Your task to perform on an android device: open app "DuckDuckGo Privacy Browser" Image 0: 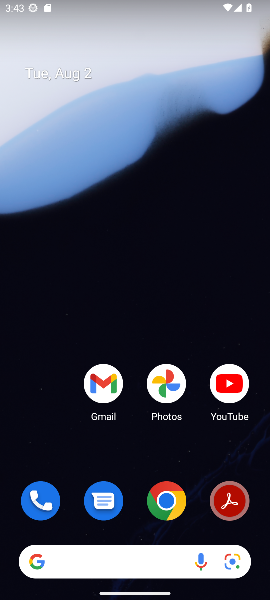
Step 0: drag from (129, 460) to (45, 106)
Your task to perform on an android device: open app "DuckDuckGo Privacy Browser" Image 1: 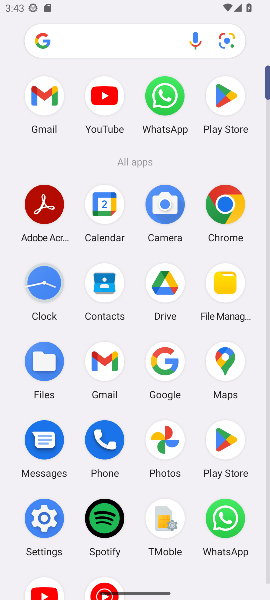
Step 1: click (221, 449)
Your task to perform on an android device: open app "DuckDuckGo Privacy Browser" Image 2: 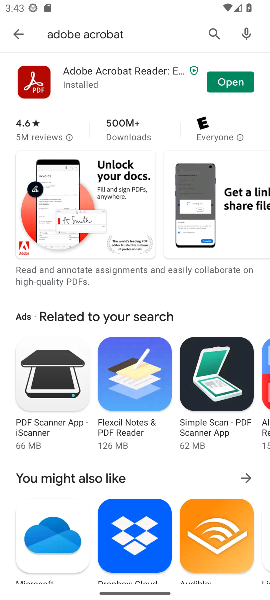
Step 2: click (211, 31)
Your task to perform on an android device: open app "DuckDuckGo Privacy Browser" Image 3: 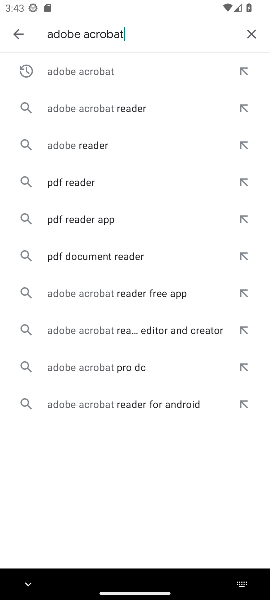
Step 3: click (211, 31)
Your task to perform on an android device: open app "DuckDuckGo Privacy Browser" Image 4: 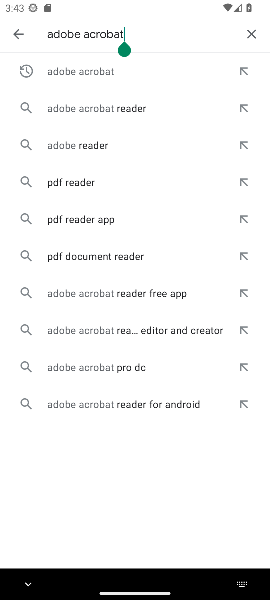
Step 4: click (250, 32)
Your task to perform on an android device: open app "DuckDuckGo Privacy Browser" Image 5: 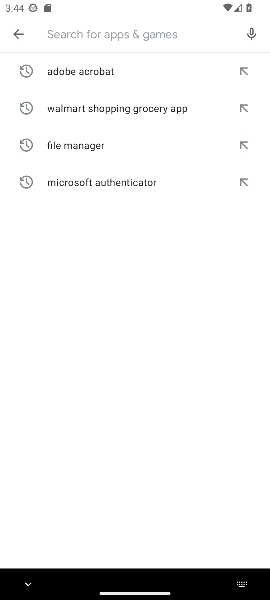
Step 5: type "duckduckgo"
Your task to perform on an android device: open app "DuckDuckGo Privacy Browser" Image 6: 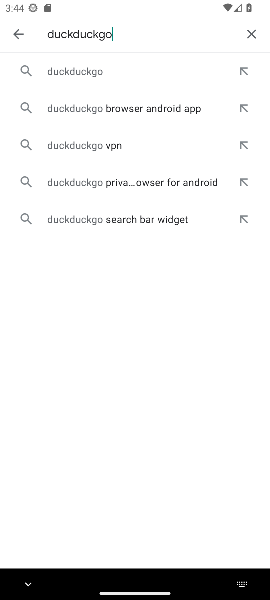
Step 6: click (99, 71)
Your task to perform on an android device: open app "DuckDuckGo Privacy Browser" Image 7: 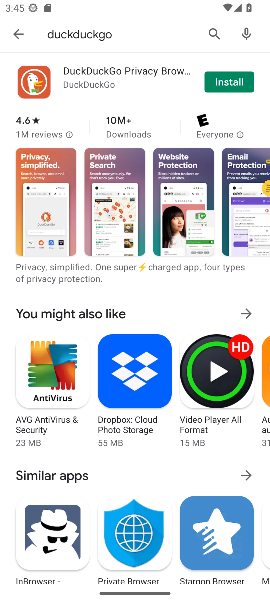
Step 7: click (228, 81)
Your task to perform on an android device: open app "DuckDuckGo Privacy Browser" Image 8: 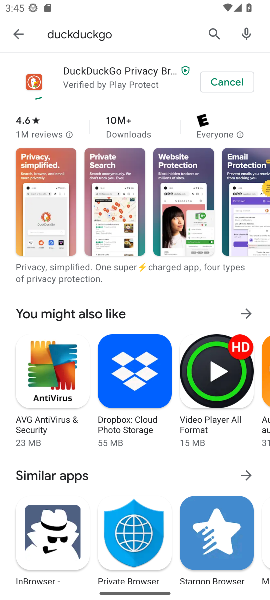
Step 8: click (229, 81)
Your task to perform on an android device: open app "DuckDuckGo Privacy Browser" Image 9: 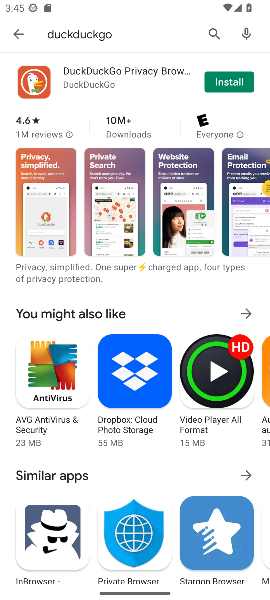
Step 9: task complete